Your task to perform on an android device: What's the weather? Image 0: 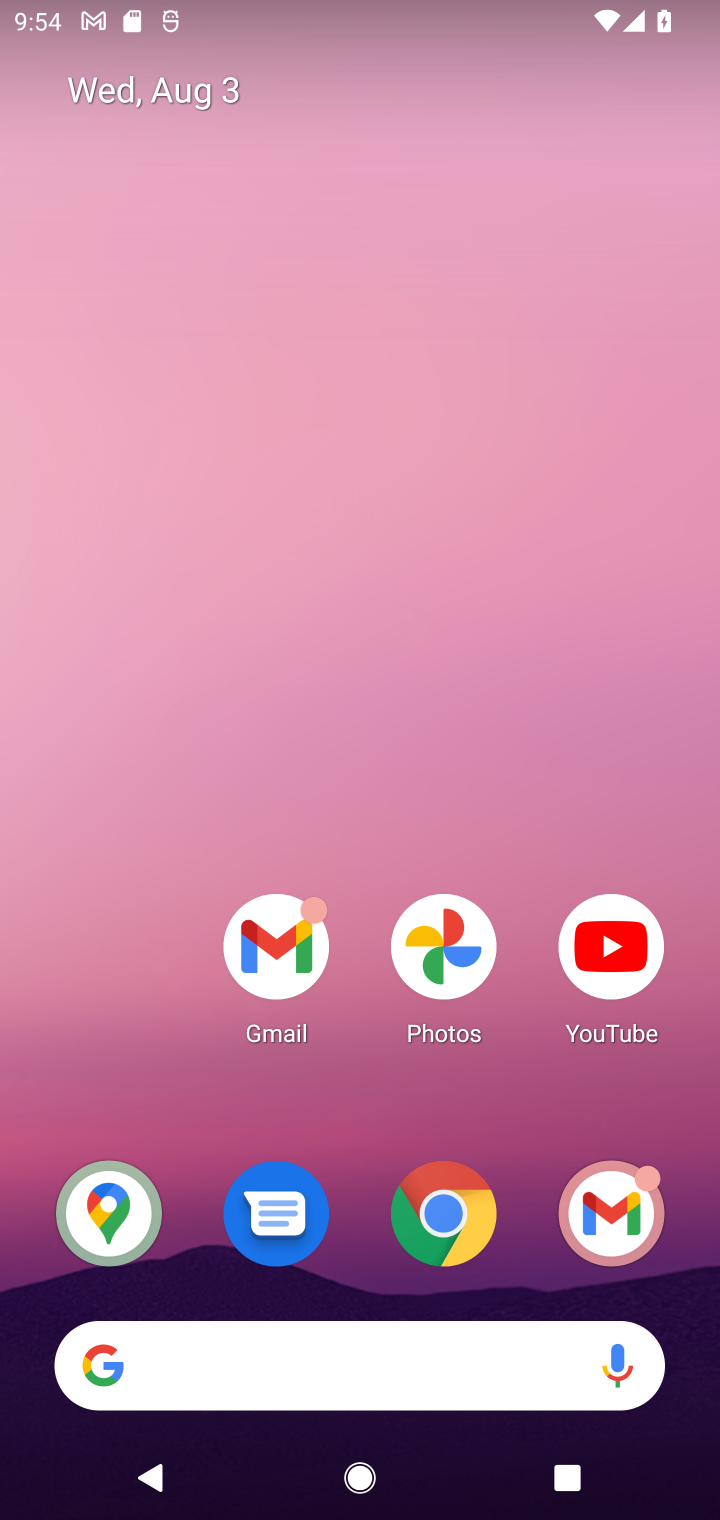
Step 0: click (373, 1340)
Your task to perform on an android device: What's the weather? Image 1: 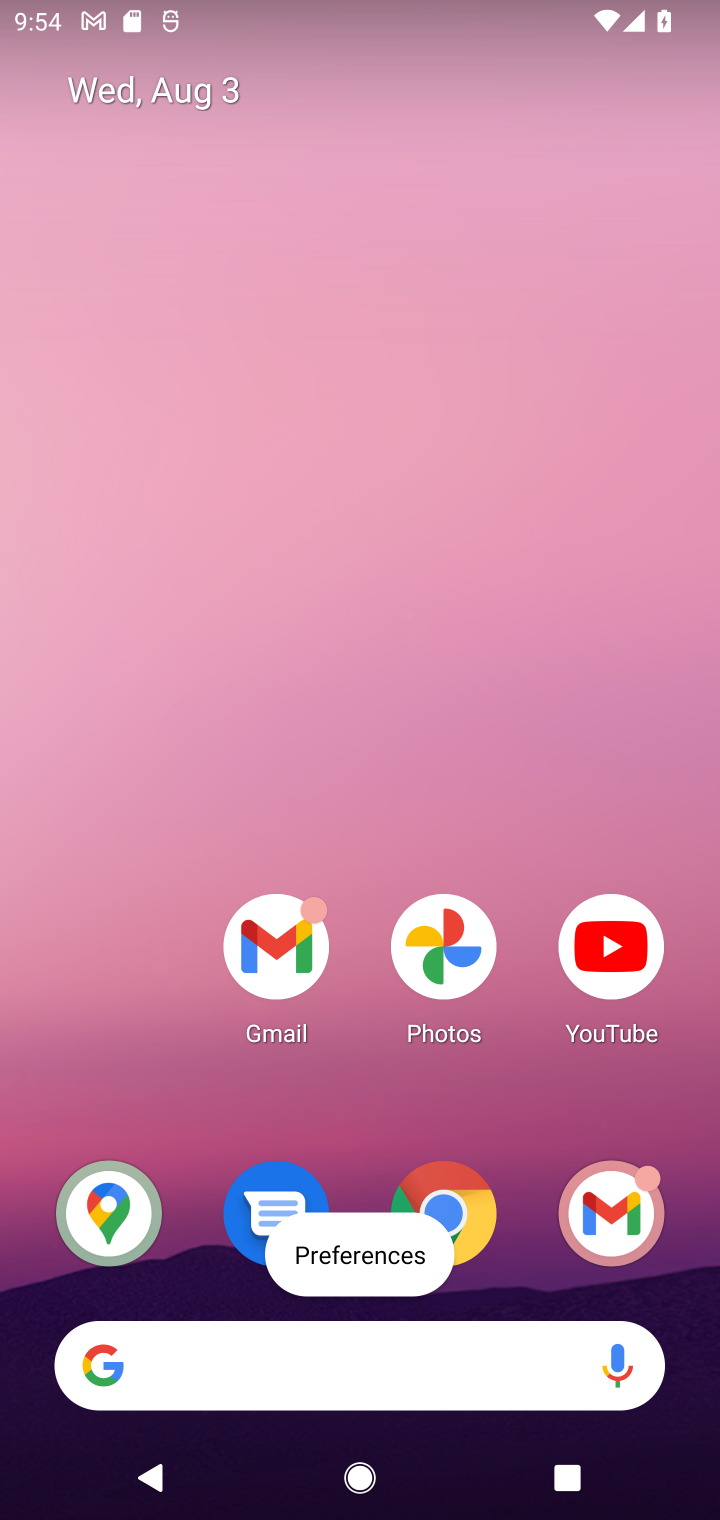
Step 1: drag from (347, 1325) to (347, 23)
Your task to perform on an android device: What's the weather? Image 2: 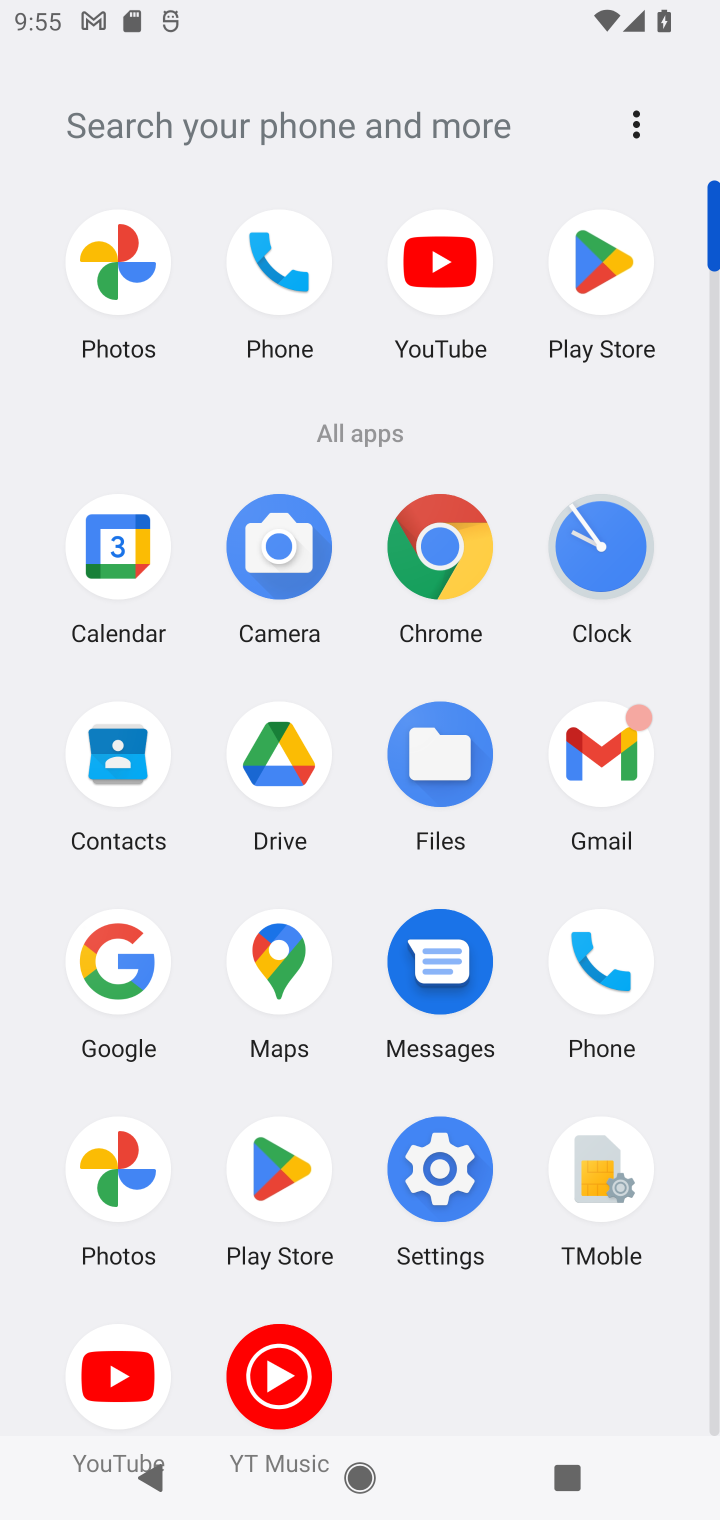
Step 2: click (87, 959)
Your task to perform on an android device: What's the weather? Image 3: 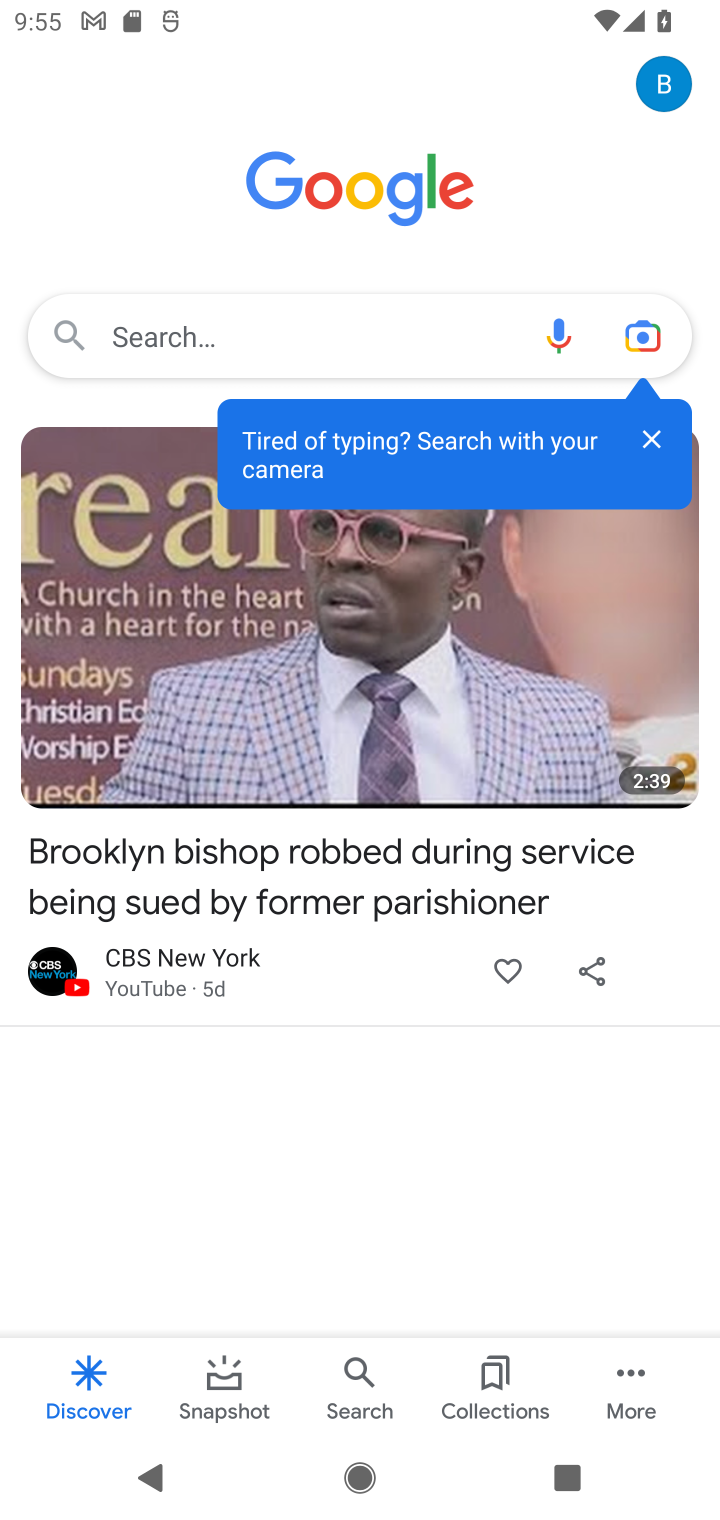
Step 3: click (220, 323)
Your task to perform on an android device: What's the weather? Image 4: 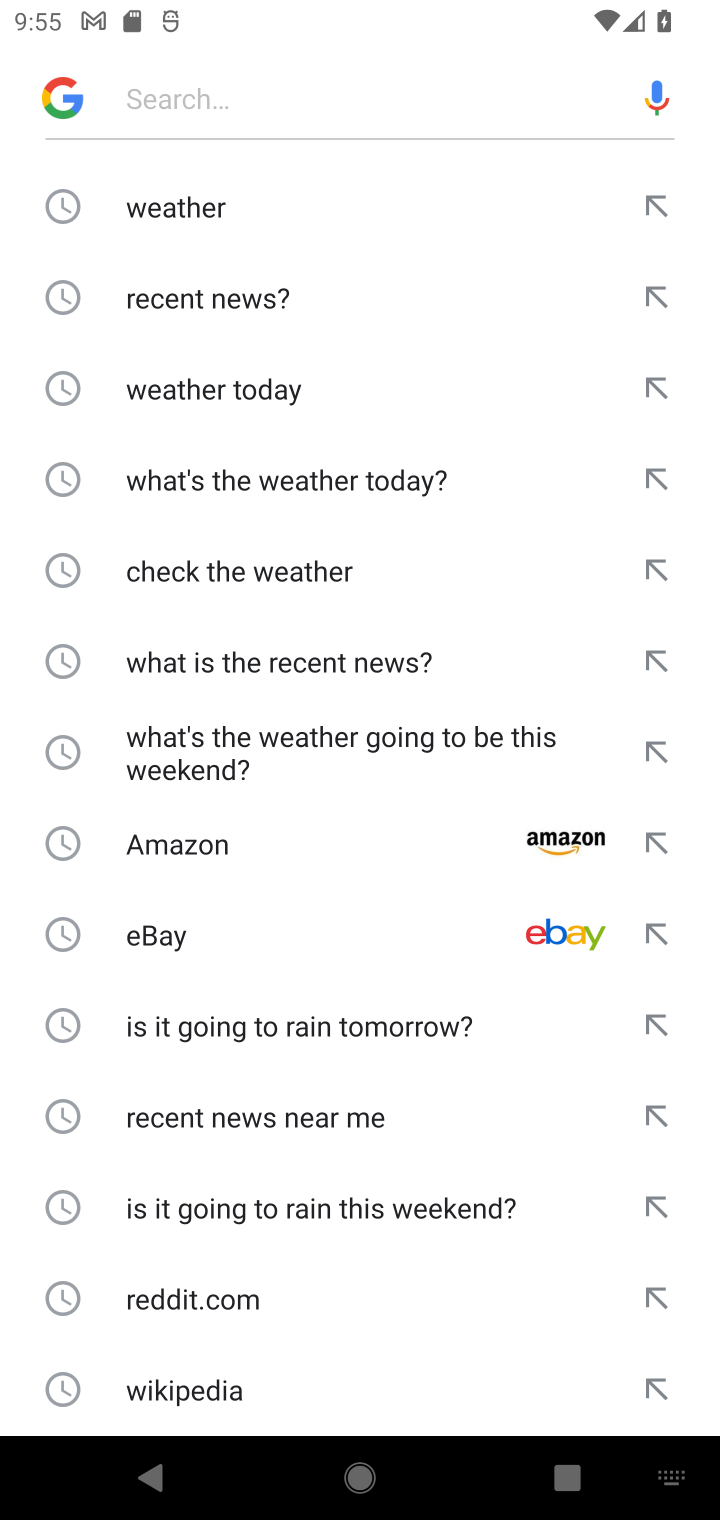
Step 4: click (201, 189)
Your task to perform on an android device: What's the weather? Image 5: 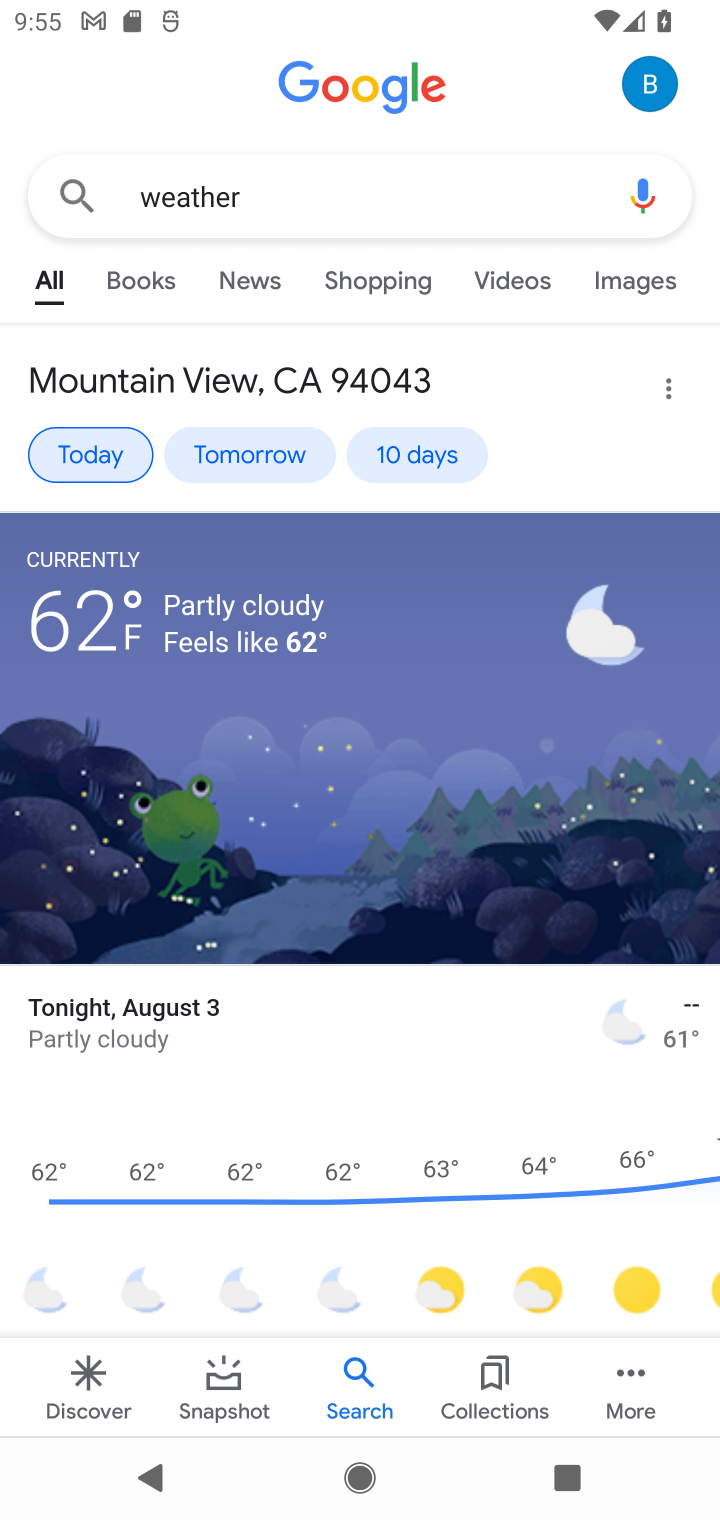
Step 5: task complete